Your task to perform on an android device: open sync settings in chrome Image 0: 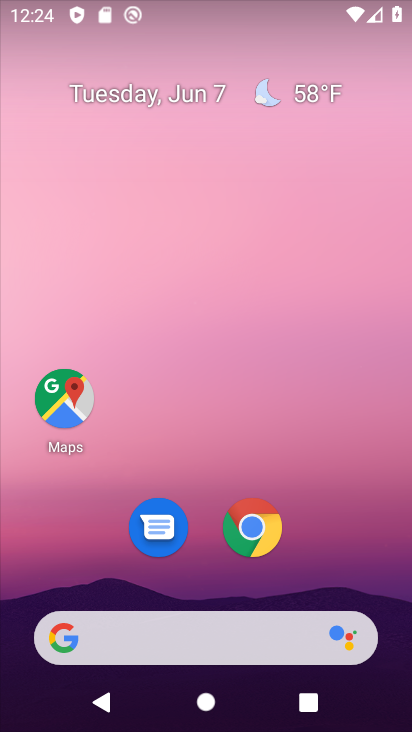
Step 0: click (251, 512)
Your task to perform on an android device: open sync settings in chrome Image 1: 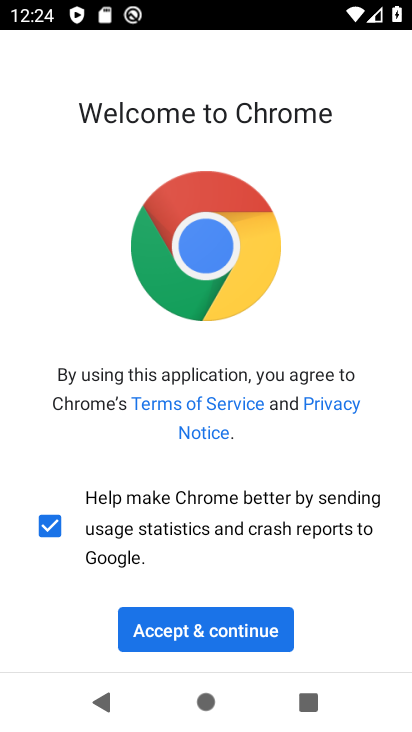
Step 1: click (238, 635)
Your task to perform on an android device: open sync settings in chrome Image 2: 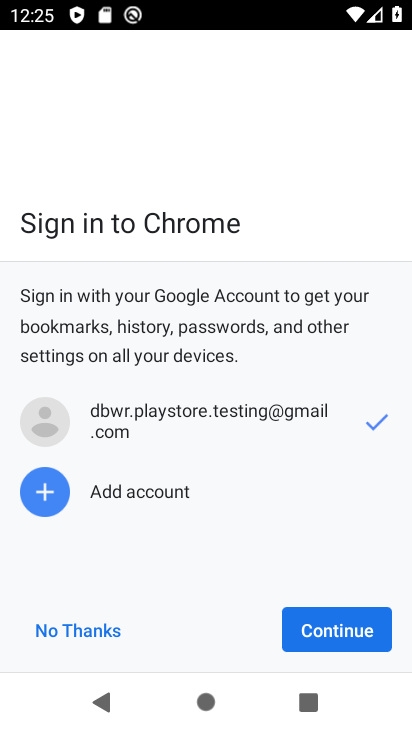
Step 2: click (351, 639)
Your task to perform on an android device: open sync settings in chrome Image 3: 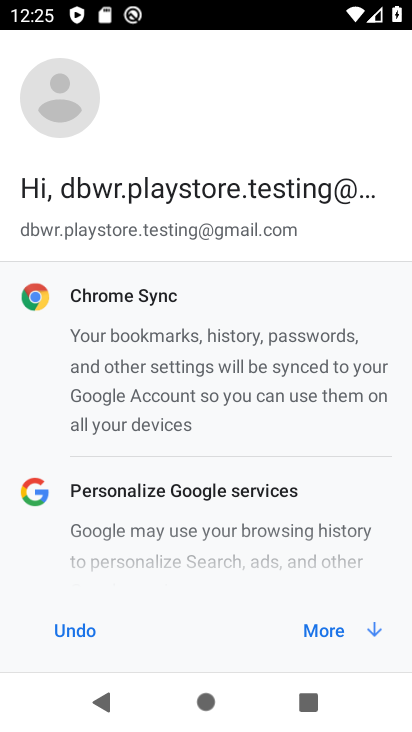
Step 3: click (309, 621)
Your task to perform on an android device: open sync settings in chrome Image 4: 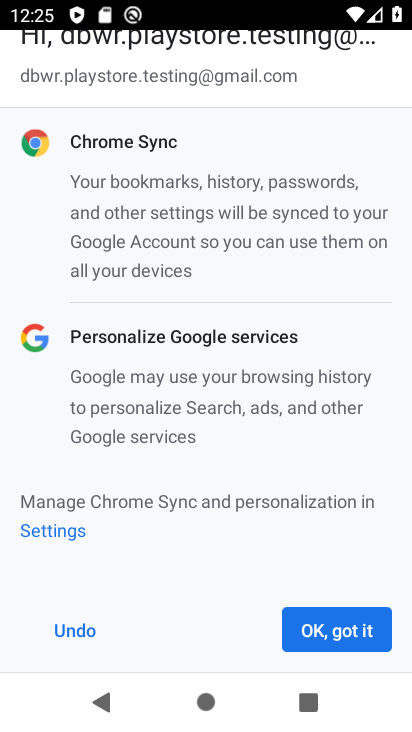
Step 4: click (362, 625)
Your task to perform on an android device: open sync settings in chrome Image 5: 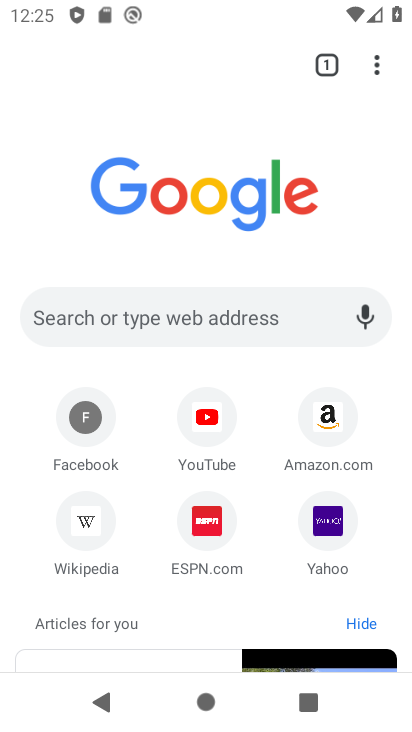
Step 5: click (374, 62)
Your task to perform on an android device: open sync settings in chrome Image 6: 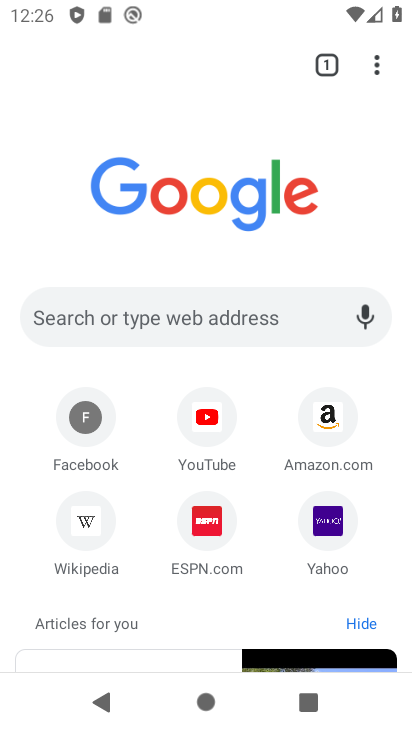
Step 6: click (374, 62)
Your task to perform on an android device: open sync settings in chrome Image 7: 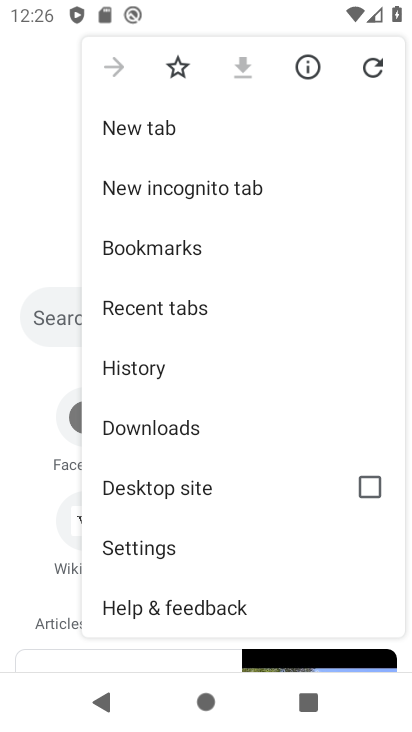
Step 7: click (155, 540)
Your task to perform on an android device: open sync settings in chrome Image 8: 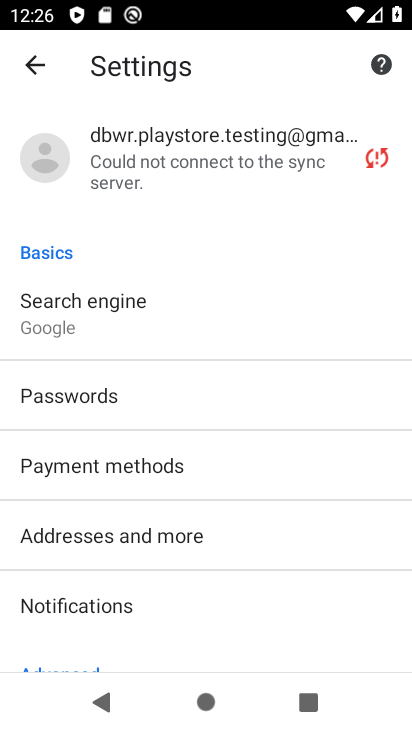
Step 8: drag from (261, 607) to (279, 28)
Your task to perform on an android device: open sync settings in chrome Image 9: 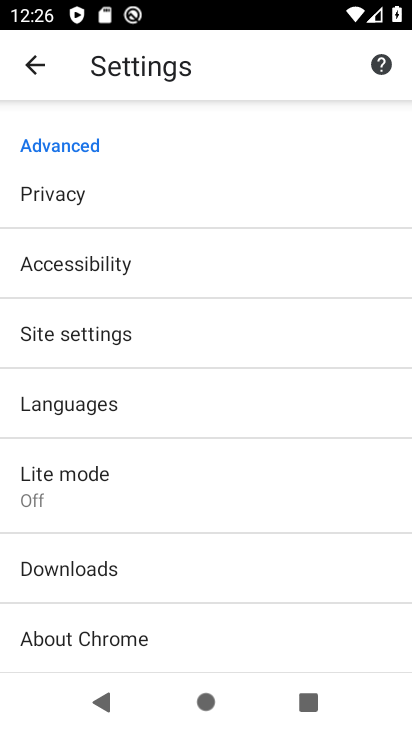
Step 9: click (112, 318)
Your task to perform on an android device: open sync settings in chrome Image 10: 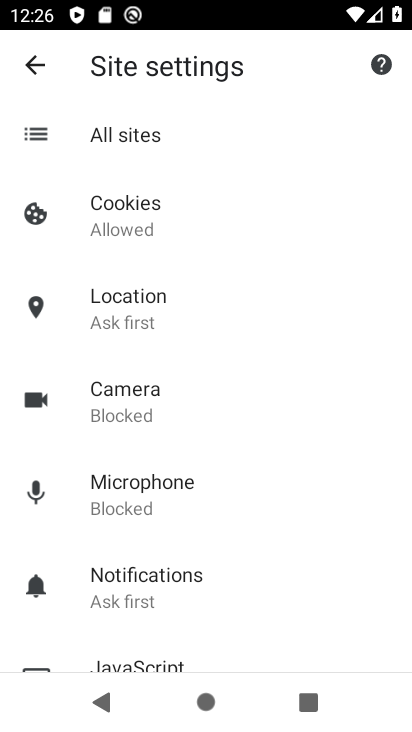
Step 10: drag from (326, 629) to (287, 163)
Your task to perform on an android device: open sync settings in chrome Image 11: 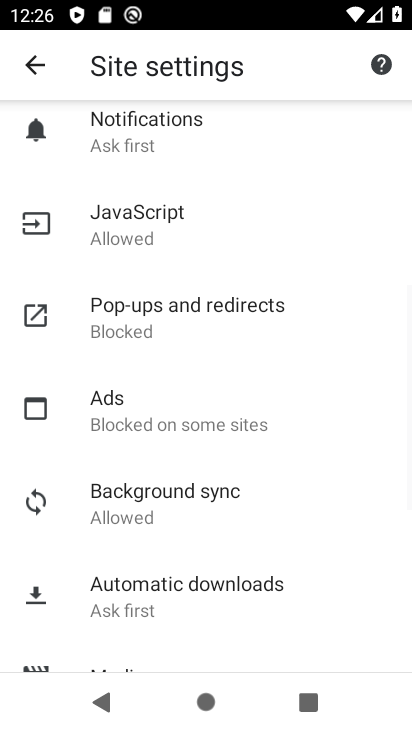
Step 11: click (141, 493)
Your task to perform on an android device: open sync settings in chrome Image 12: 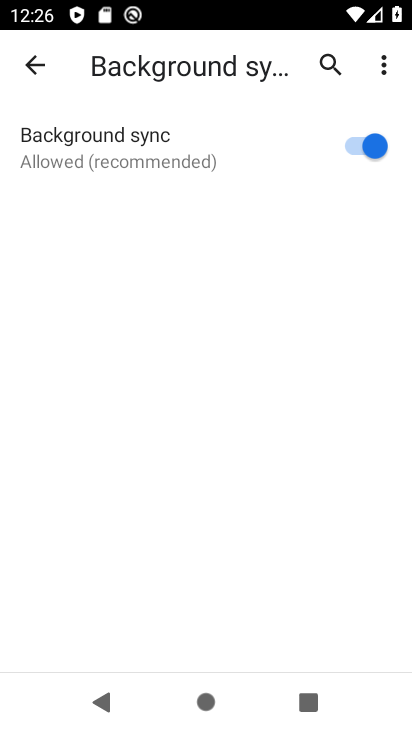
Step 12: task complete